Your task to perform on an android device: turn off data saver in the chrome app Image 0: 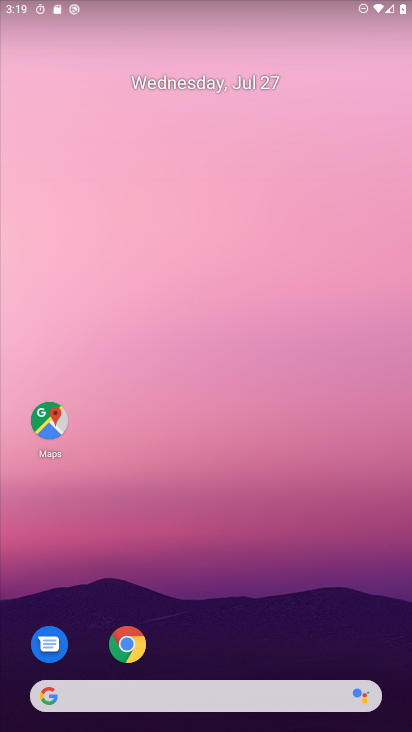
Step 0: drag from (214, 644) to (238, 21)
Your task to perform on an android device: turn off data saver in the chrome app Image 1: 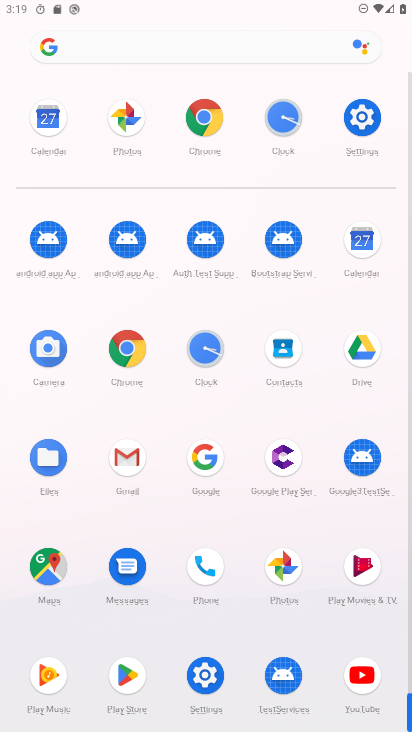
Step 1: click (134, 360)
Your task to perform on an android device: turn off data saver in the chrome app Image 2: 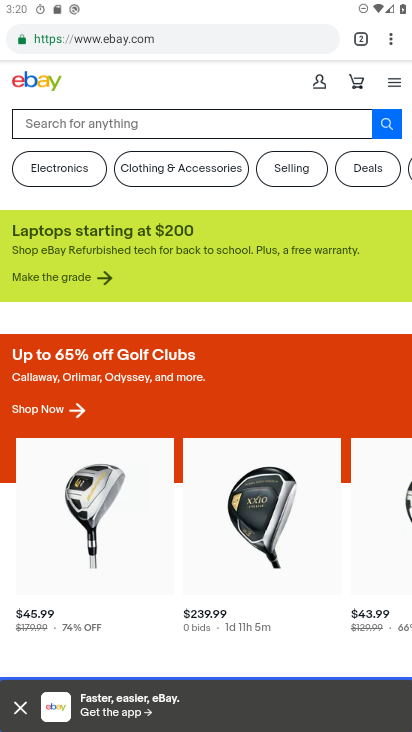
Step 2: click (393, 42)
Your task to perform on an android device: turn off data saver in the chrome app Image 3: 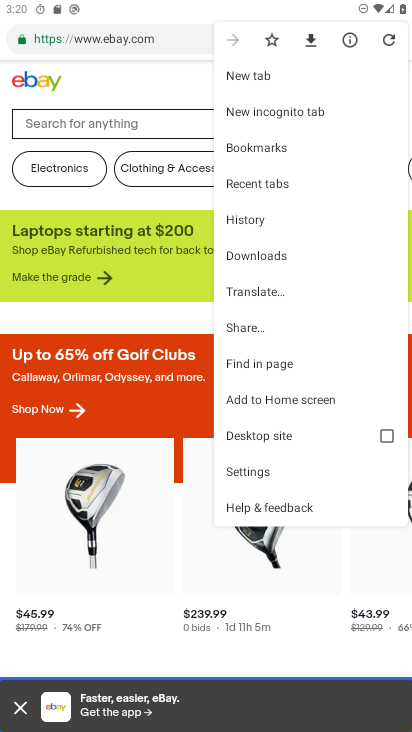
Step 3: click (246, 475)
Your task to perform on an android device: turn off data saver in the chrome app Image 4: 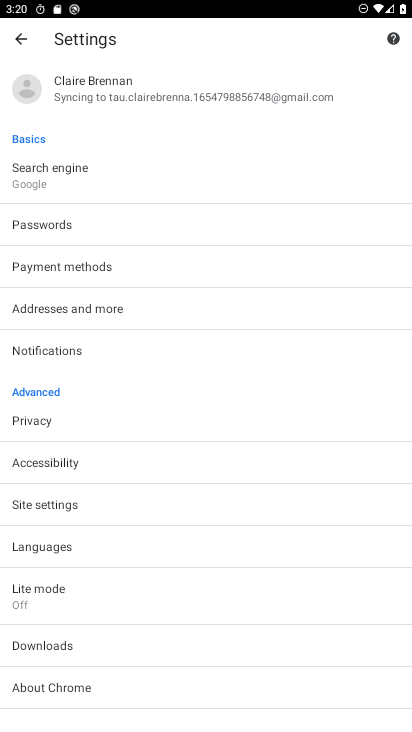
Step 4: click (44, 593)
Your task to perform on an android device: turn off data saver in the chrome app Image 5: 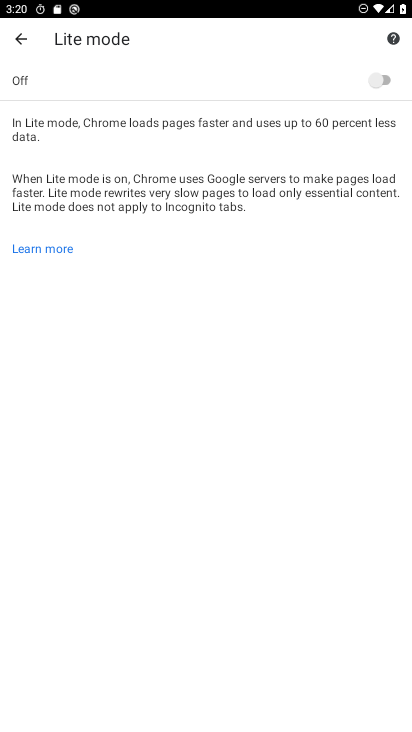
Step 5: task complete